Your task to perform on an android device: Do I have any events today? Image 0: 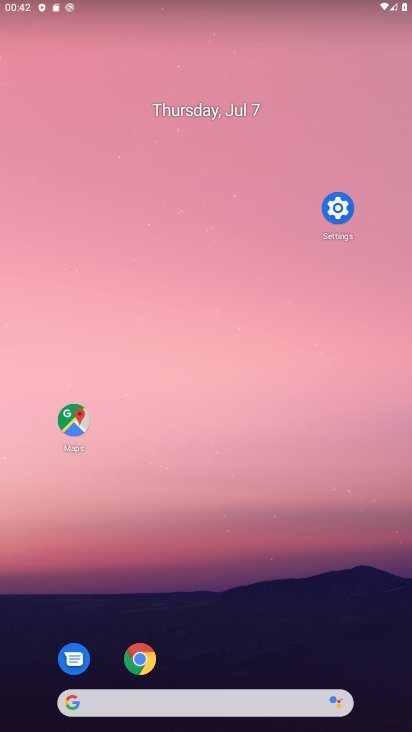
Step 0: drag from (252, 699) to (145, 138)
Your task to perform on an android device: Do I have any events today? Image 1: 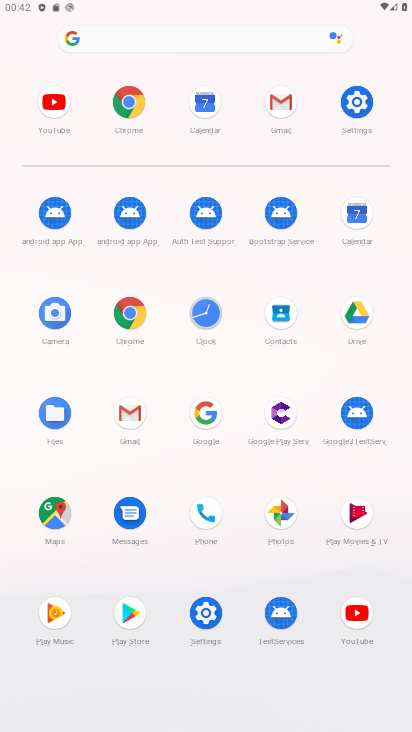
Step 1: click (361, 220)
Your task to perform on an android device: Do I have any events today? Image 2: 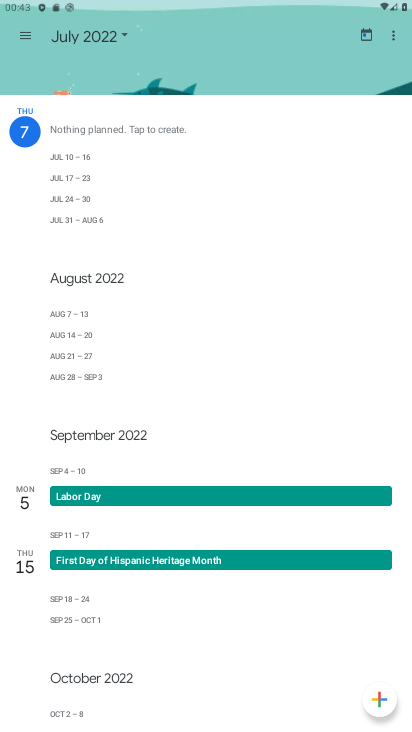
Step 2: click (37, 135)
Your task to perform on an android device: Do I have any events today? Image 3: 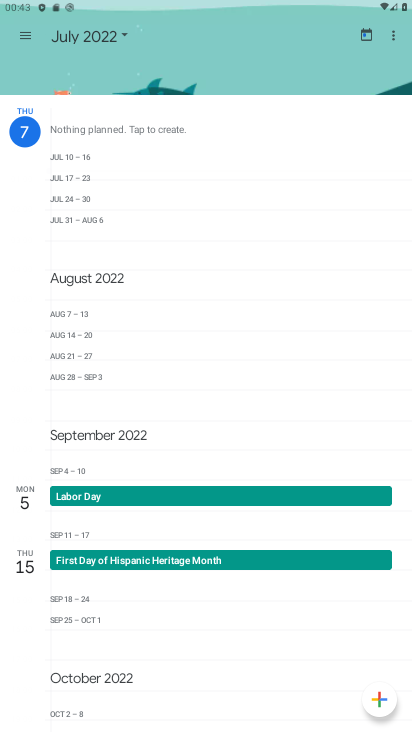
Step 3: click (37, 135)
Your task to perform on an android device: Do I have any events today? Image 4: 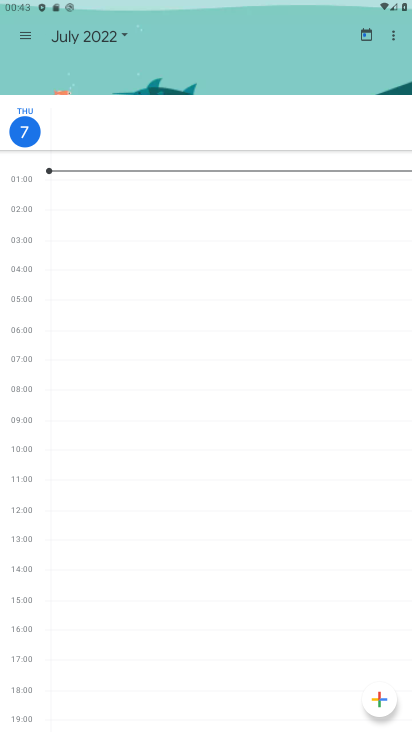
Step 4: click (37, 135)
Your task to perform on an android device: Do I have any events today? Image 5: 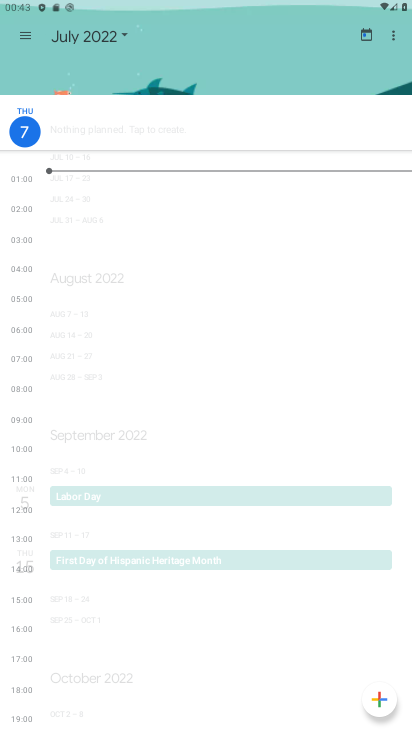
Step 5: click (37, 135)
Your task to perform on an android device: Do I have any events today? Image 6: 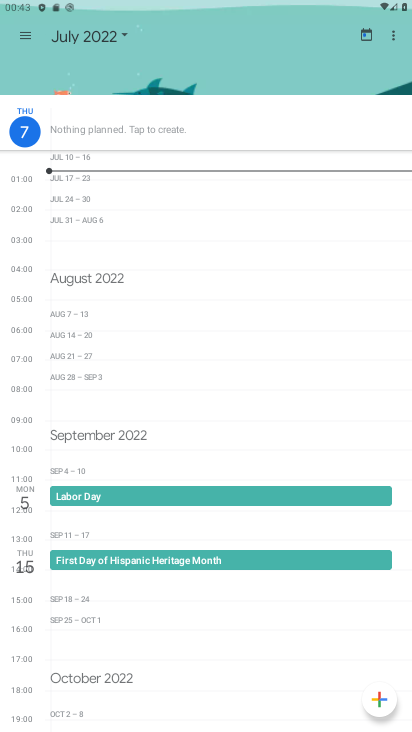
Step 6: click (37, 135)
Your task to perform on an android device: Do I have any events today? Image 7: 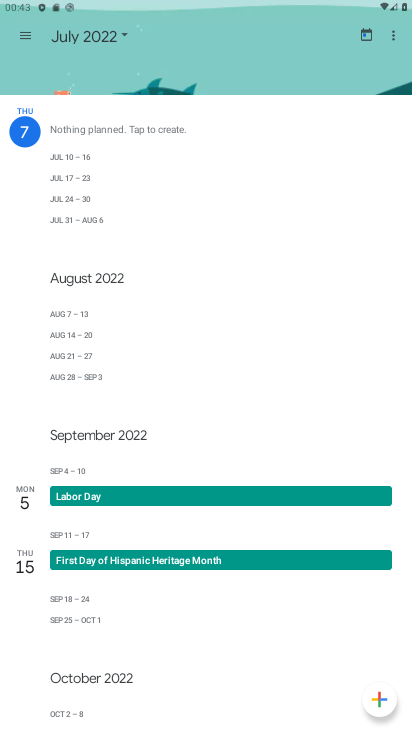
Step 7: click (39, 136)
Your task to perform on an android device: Do I have any events today? Image 8: 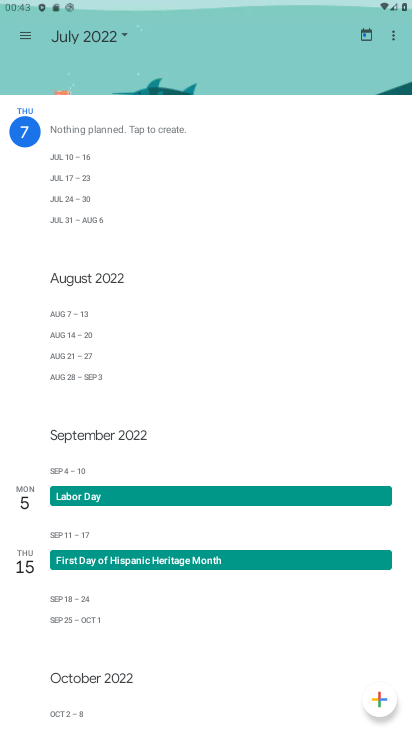
Step 8: task complete